Your task to perform on an android device: Open calendar and show me the fourth week of next month Image 0: 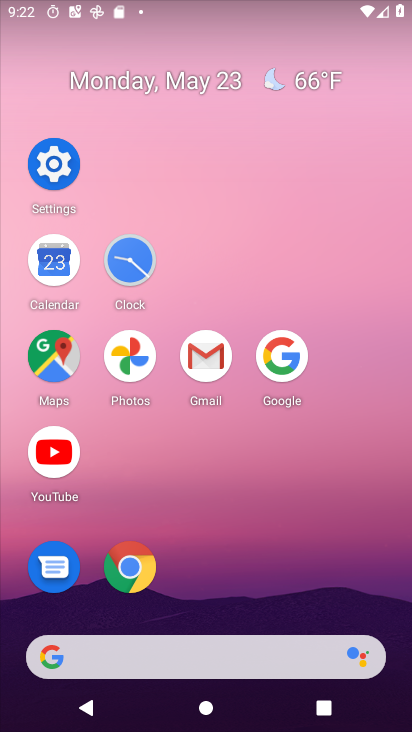
Step 0: click (56, 267)
Your task to perform on an android device: Open calendar and show me the fourth week of next month Image 1: 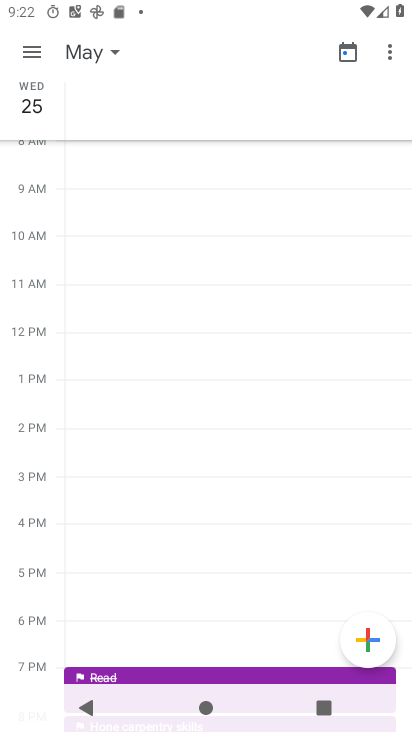
Step 1: click (84, 54)
Your task to perform on an android device: Open calendar and show me the fourth week of next month Image 2: 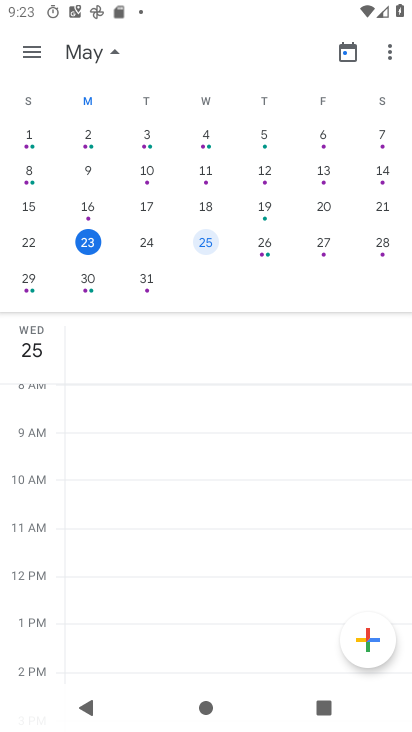
Step 2: drag from (372, 192) to (43, 190)
Your task to perform on an android device: Open calendar and show me the fourth week of next month Image 3: 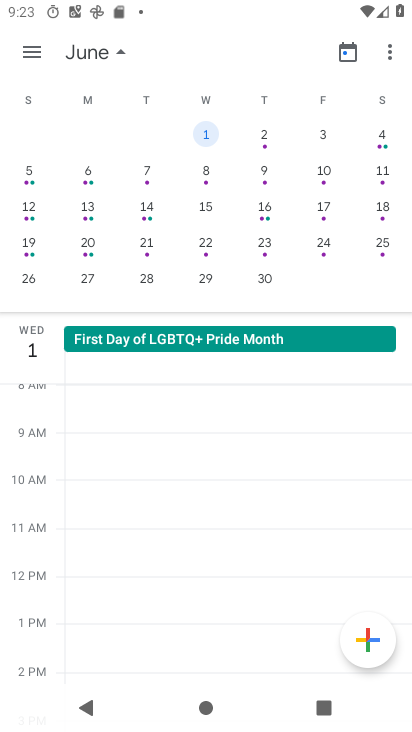
Step 3: click (36, 54)
Your task to perform on an android device: Open calendar and show me the fourth week of next month Image 4: 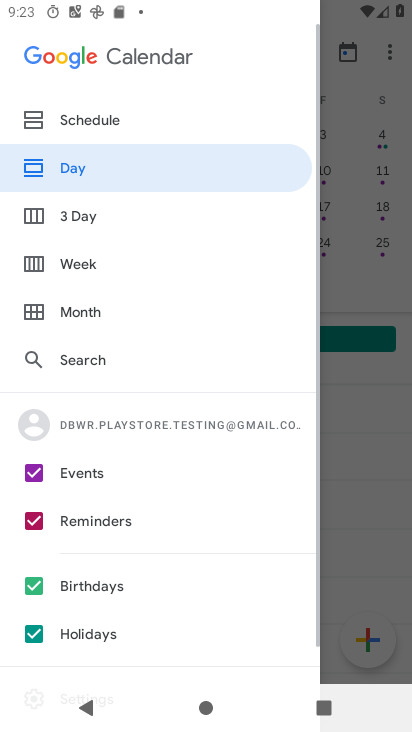
Step 4: click (113, 258)
Your task to perform on an android device: Open calendar and show me the fourth week of next month Image 5: 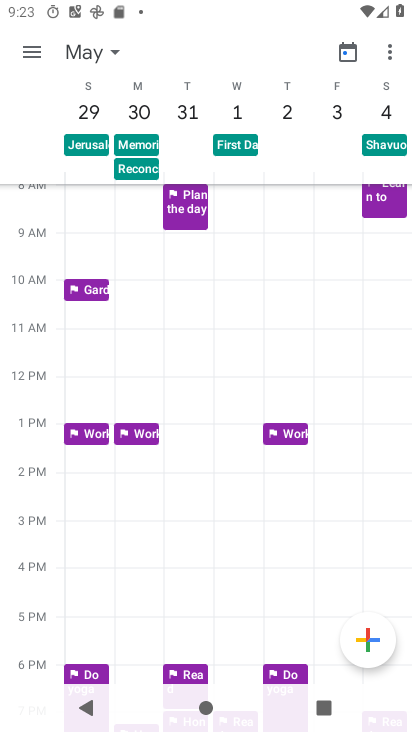
Step 5: task complete